Your task to perform on an android device: add a contact in the contacts app Image 0: 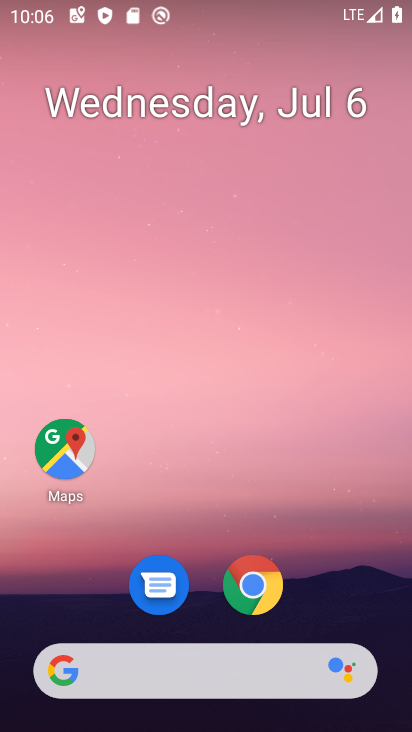
Step 0: drag from (248, 466) to (249, 28)
Your task to perform on an android device: add a contact in the contacts app Image 1: 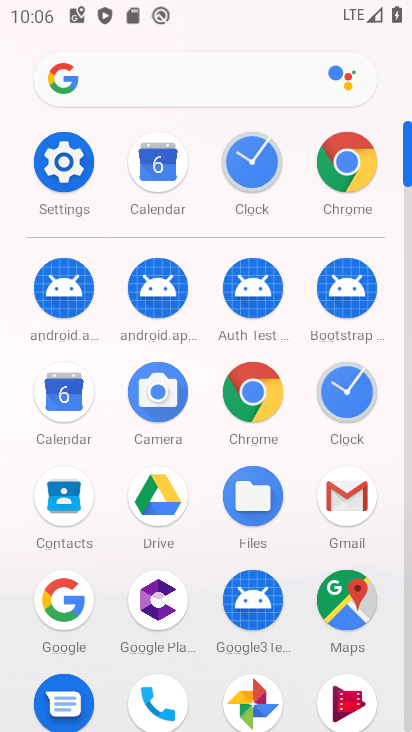
Step 1: click (69, 491)
Your task to perform on an android device: add a contact in the contacts app Image 2: 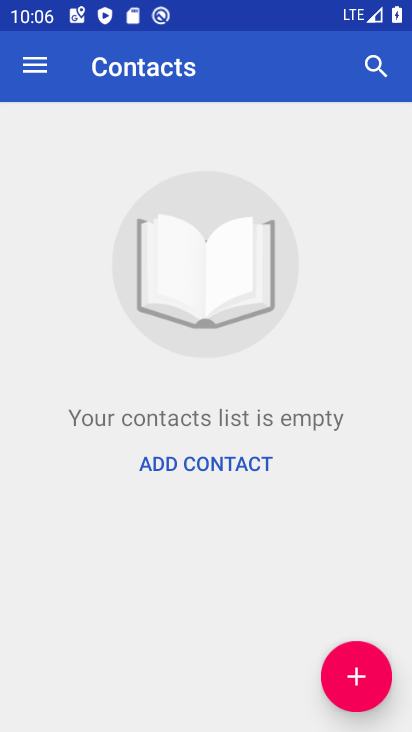
Step 2: click (341, 692)
Your task to perform on an android device: add a contact in the contacts app Image 3: 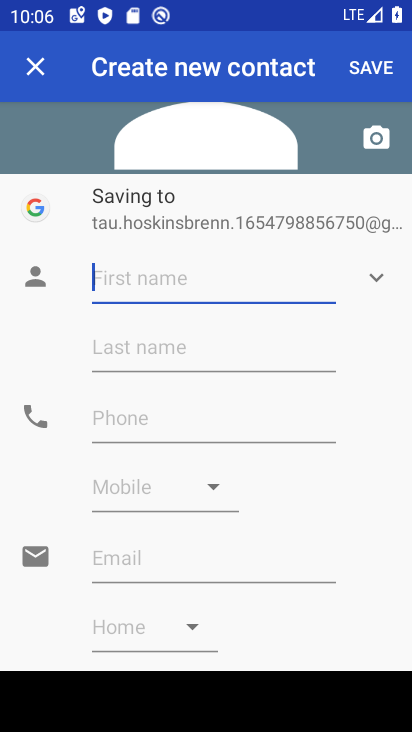
Step 3: type ""
Your task to perform on an android device: add a contact in the contacts app Image 4: 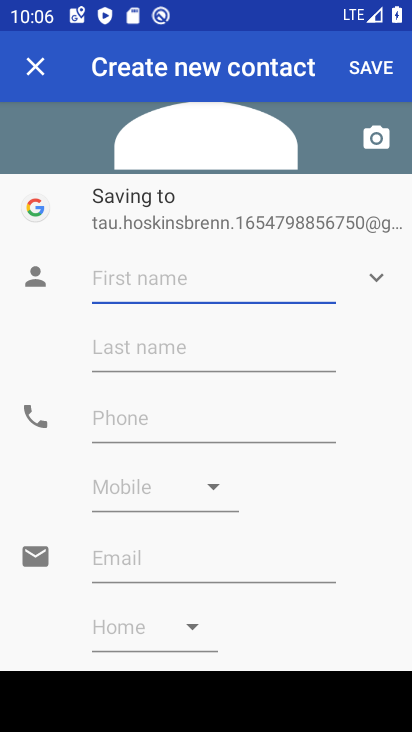
Step 4: type "Pra"
Your task to perform on an android device: add a contact in the contacts app Image 5: 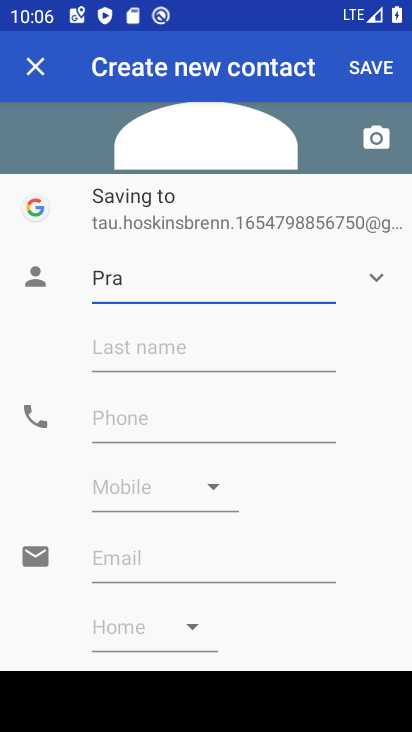
Step 5: click (175, 342)
Your task to perform on an android device: add a contact in the contacts app Image 6: 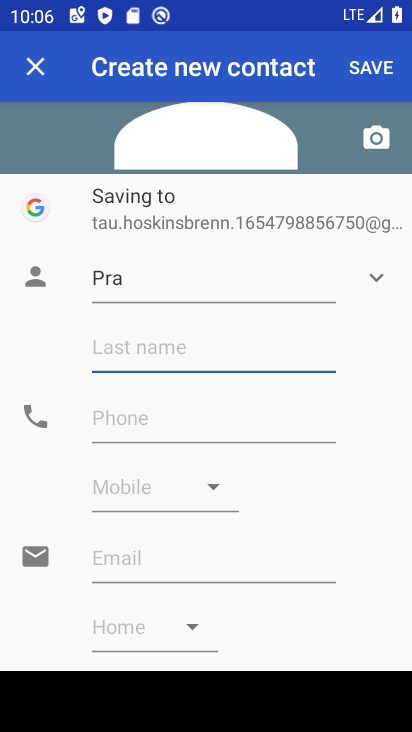
Step 6: type "Dwi"
Your task to perform on an android device: add a contact in the contacts app Image 7: 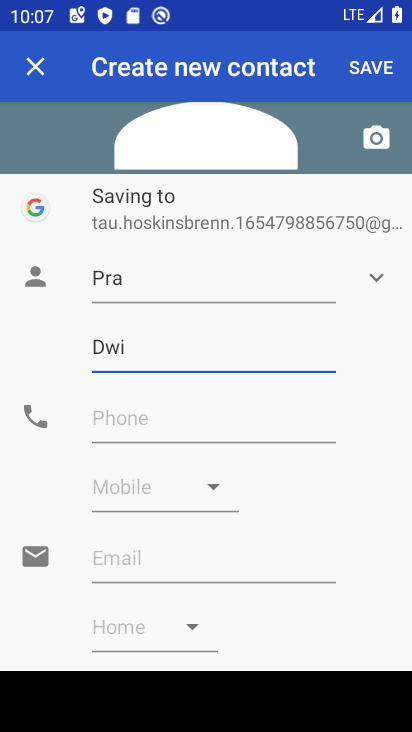
Step 7: click (202, 426)
Your task to perform on an android device: add a contact in the contacts app Image 8: 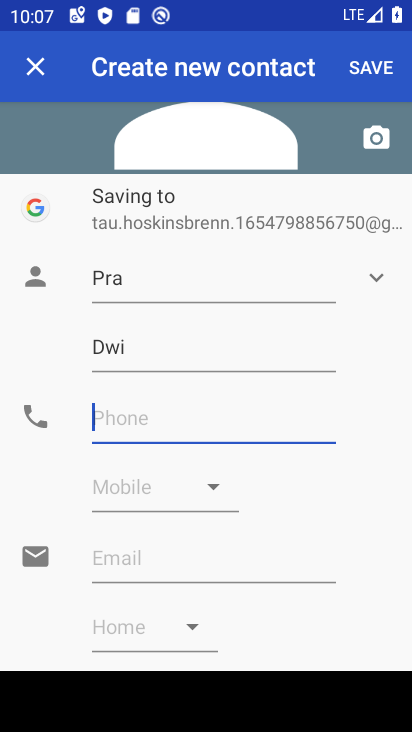
Step 8: type "99999769777"
Your task to perform on an android device: add a contact in the contacts app Image 9: 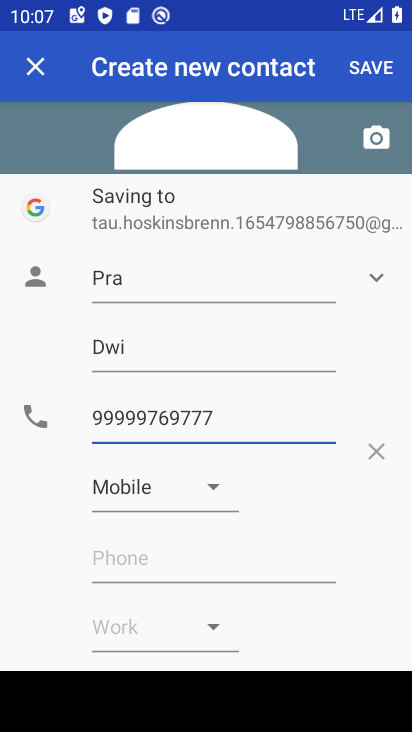
Step 9: click (382, 62)
Your task to perform on an android device: add a contact in the contacts app Image 10: 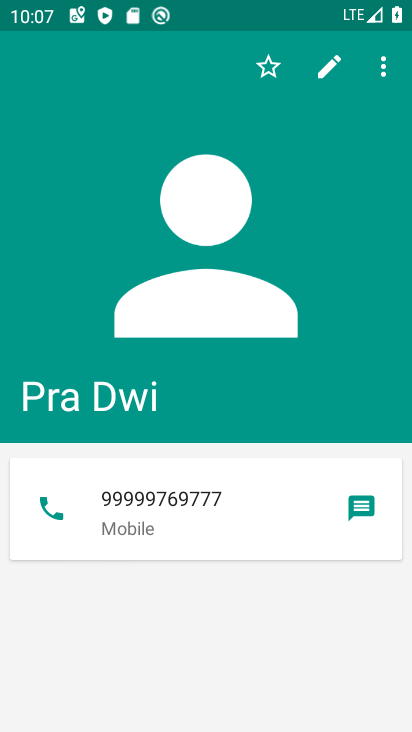
Step 10: task complete